Your task to perform on an android device: show emergency info Image 0: 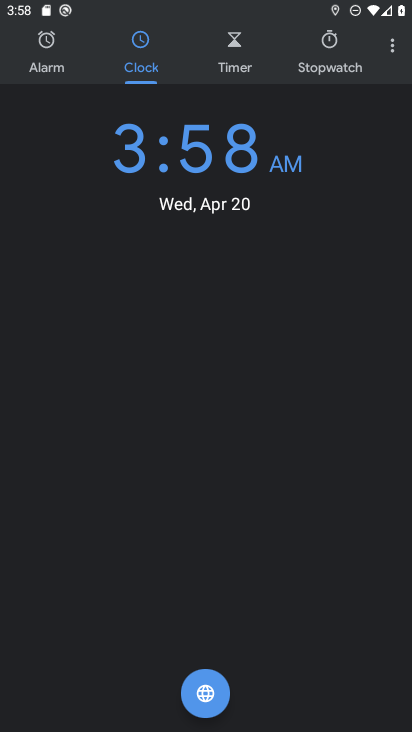
Step 0: press home button
Your task to perform on an android device: show emergency info Image 1: 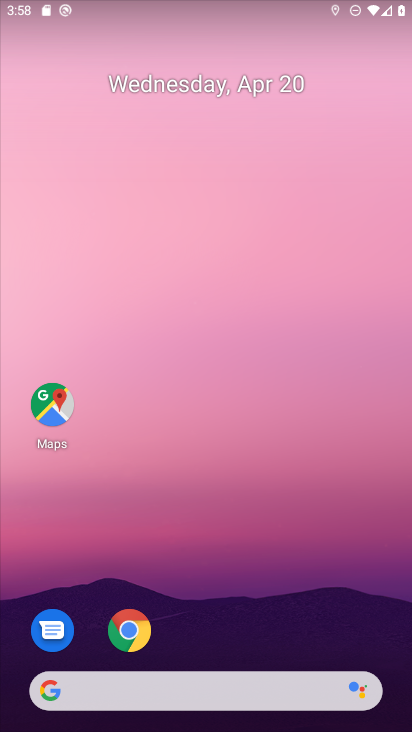
Step 1: drag from (228, 559) to (241, 37)
Your task to perform on an android device: show emergency info Image 2: 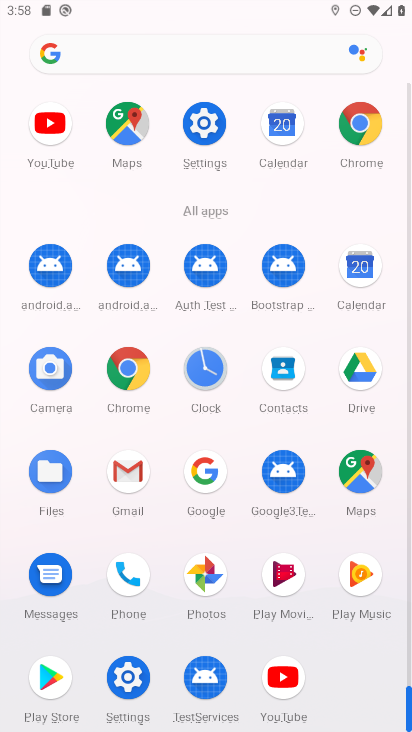
Step 2: click (127, 690)
Your task to perform on an android device: show emergency info Image 3: 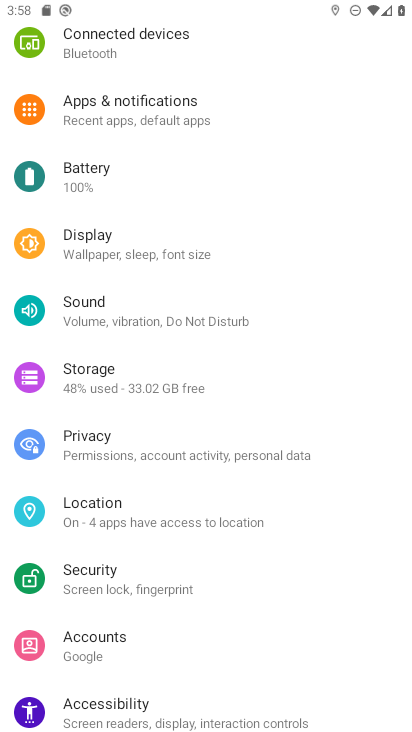
Step 3: drag from (156, 658) to (223, 119)
Your task to perform on an android device: show emergency info Image 4: 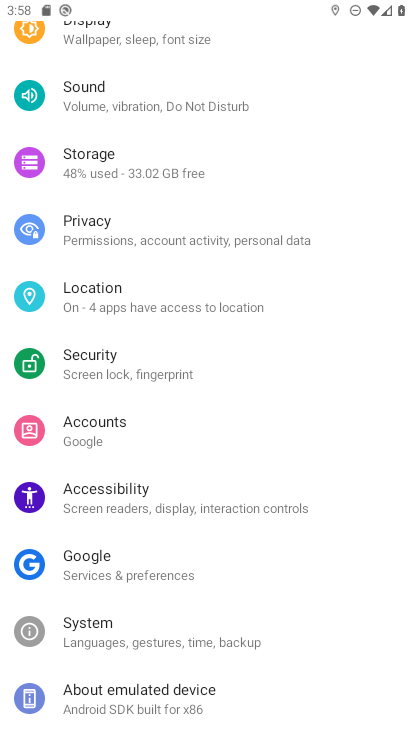
Step 4: click (208, 686)
Your task to perform on an android device: show emergency info Image 5: 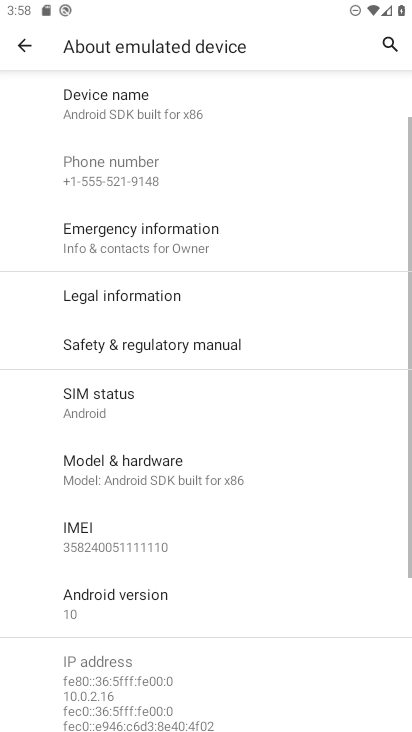
Step 5: click (168, 235)
Your task to perform on an android device: show emergency info Image 6: 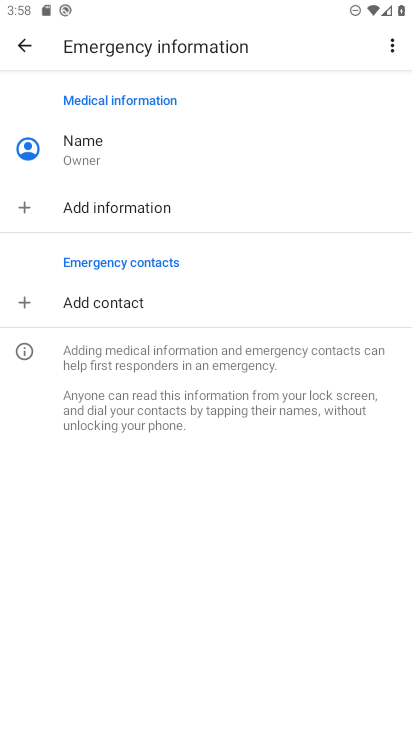
Step 6: task complete